Your task to perform on an android device: refresh tabs in the chrome app Image 0: 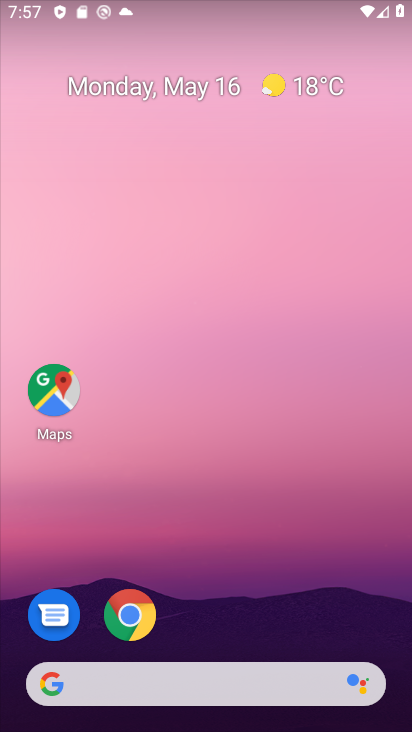
Step 0: click (148, 619)
Your task to perform on an android device: refresh tabs in the chrome app Image 1: 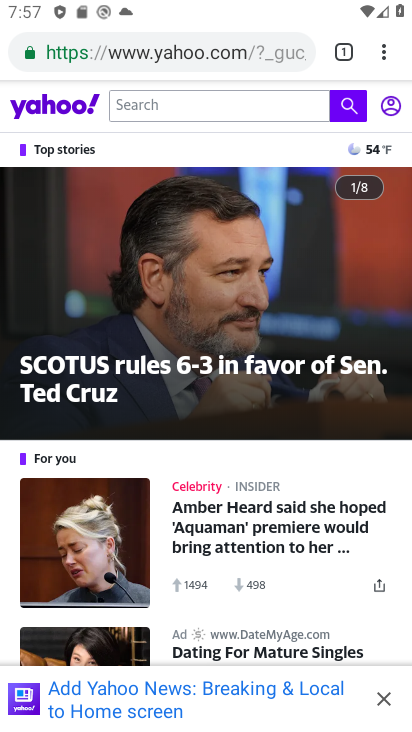
Step 1: click (376, 56)
Your task to perform on an android device: refresh tabs in the chrome app Image 2: 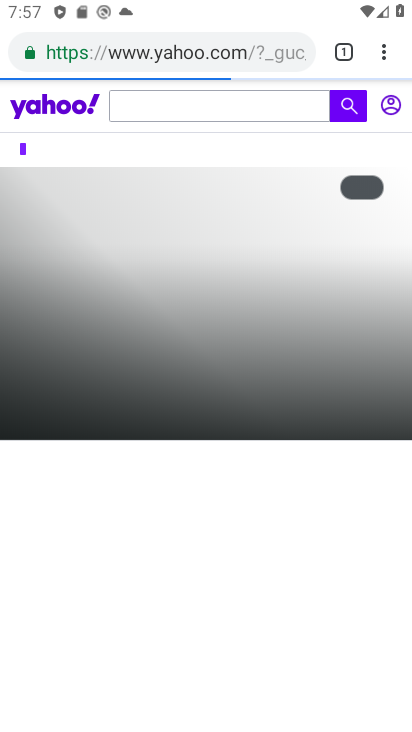
Step 2: click (377, 56)
Your task to perform on an android device: refresh tabs in the chrome app Image 3: 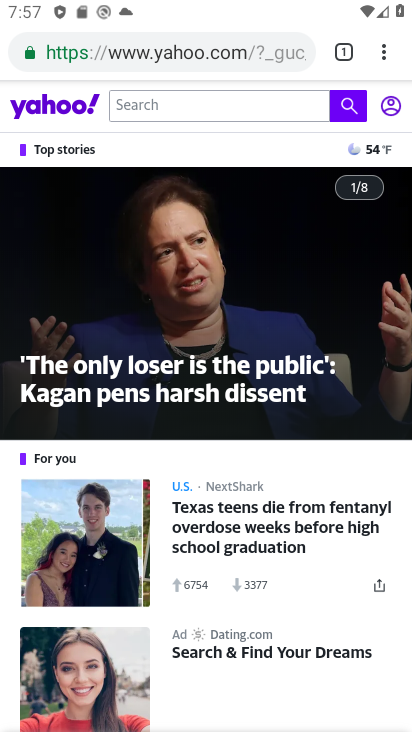
Step 3: click (386, 50)
Your task to perform on an android device: refresh tabs in the chrome app Image 4: 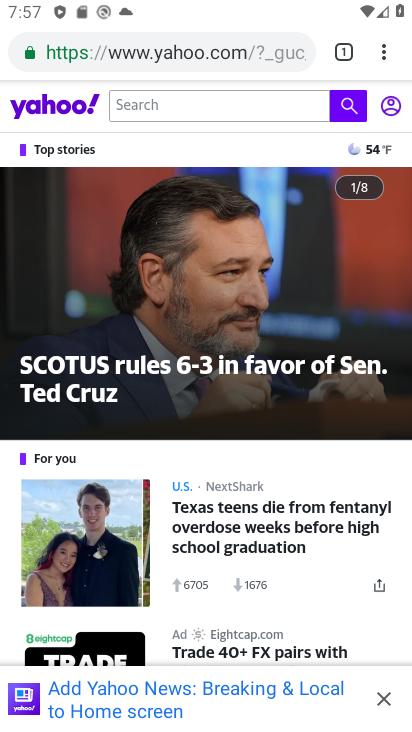
Step 4: task complete